Your task to perform on an android device: choose inbox layout in the gmail app Image 0: 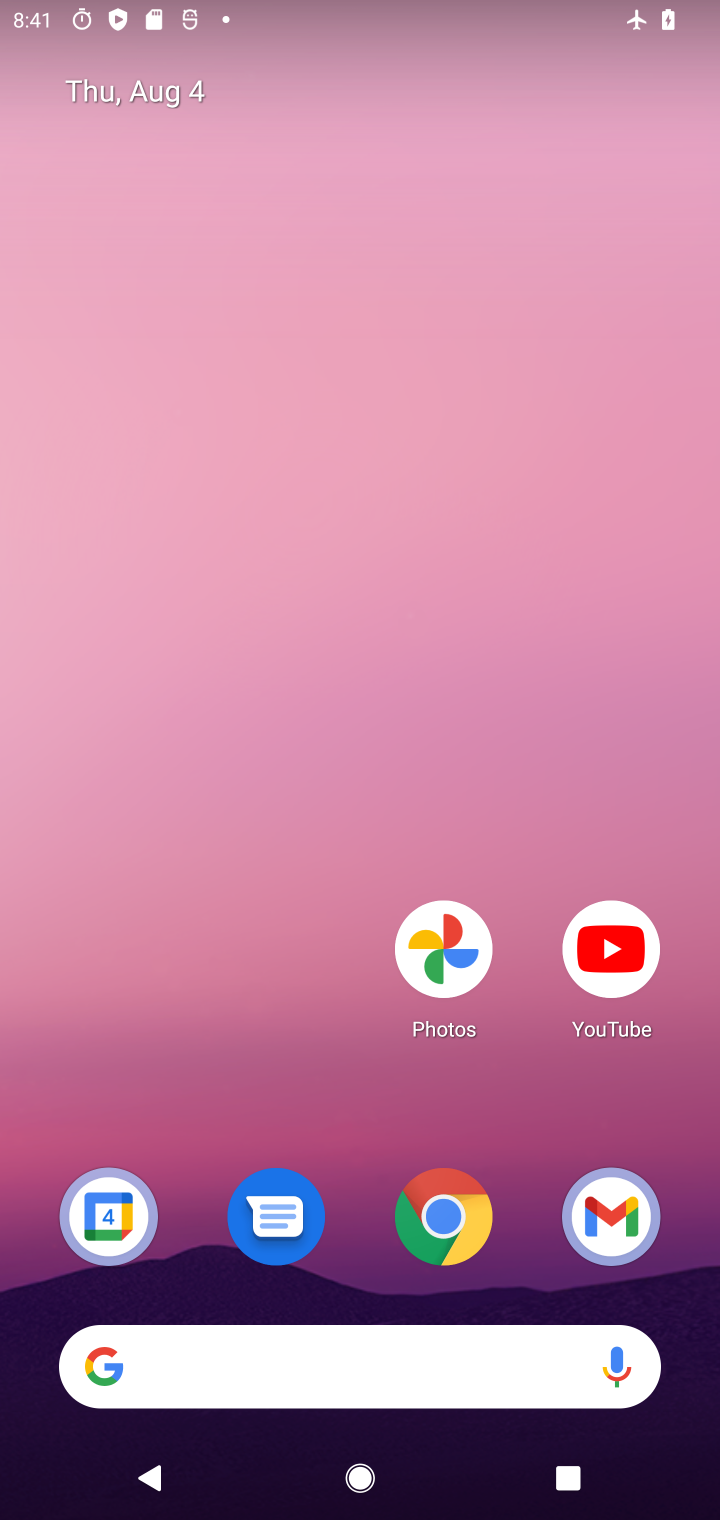
Step 0: drag from (368, 852) to (316, 153)
Your task to perform on an android device: choose inbox layout in the gmail app Image 1: 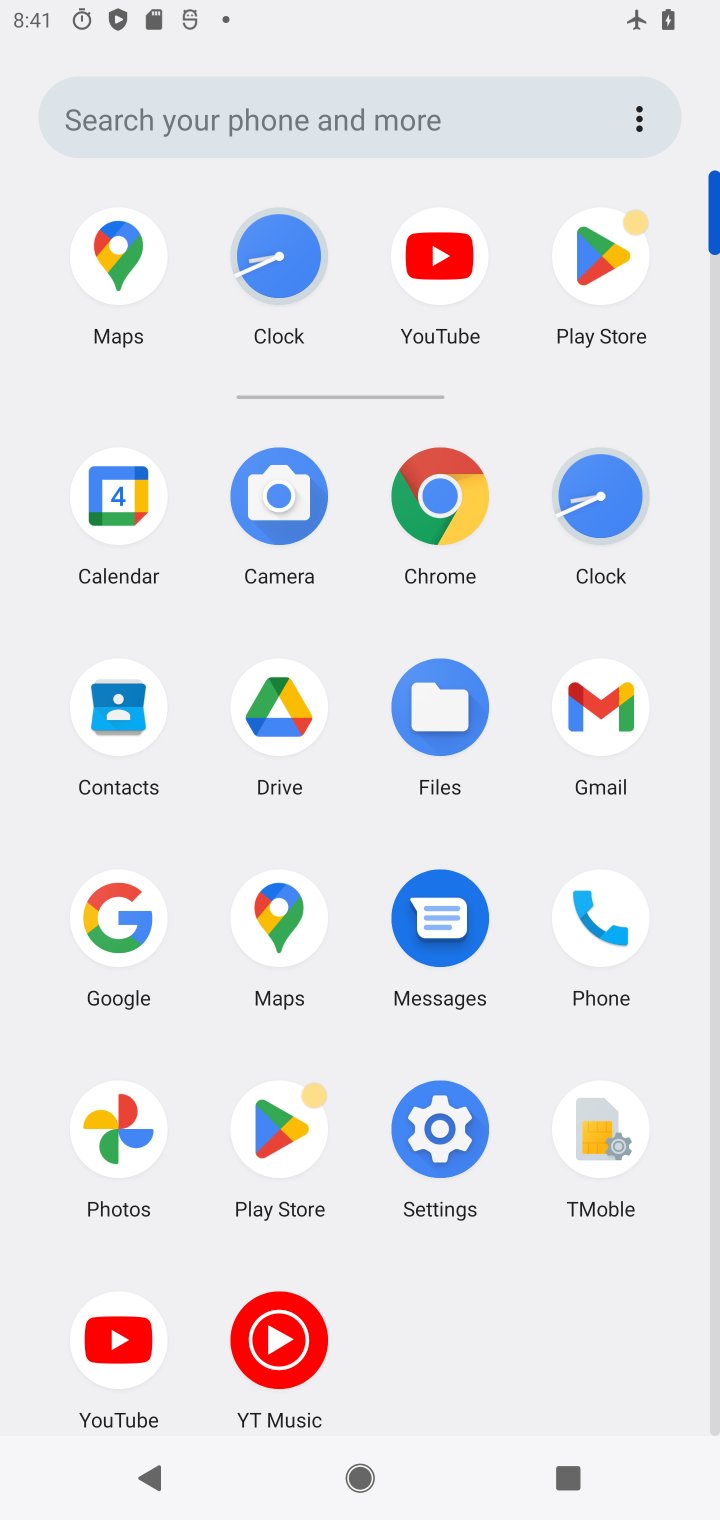
Step 1: click (606, 690)
Your task to perform on an android device: choose inbox layout in the gmail app Image 2: 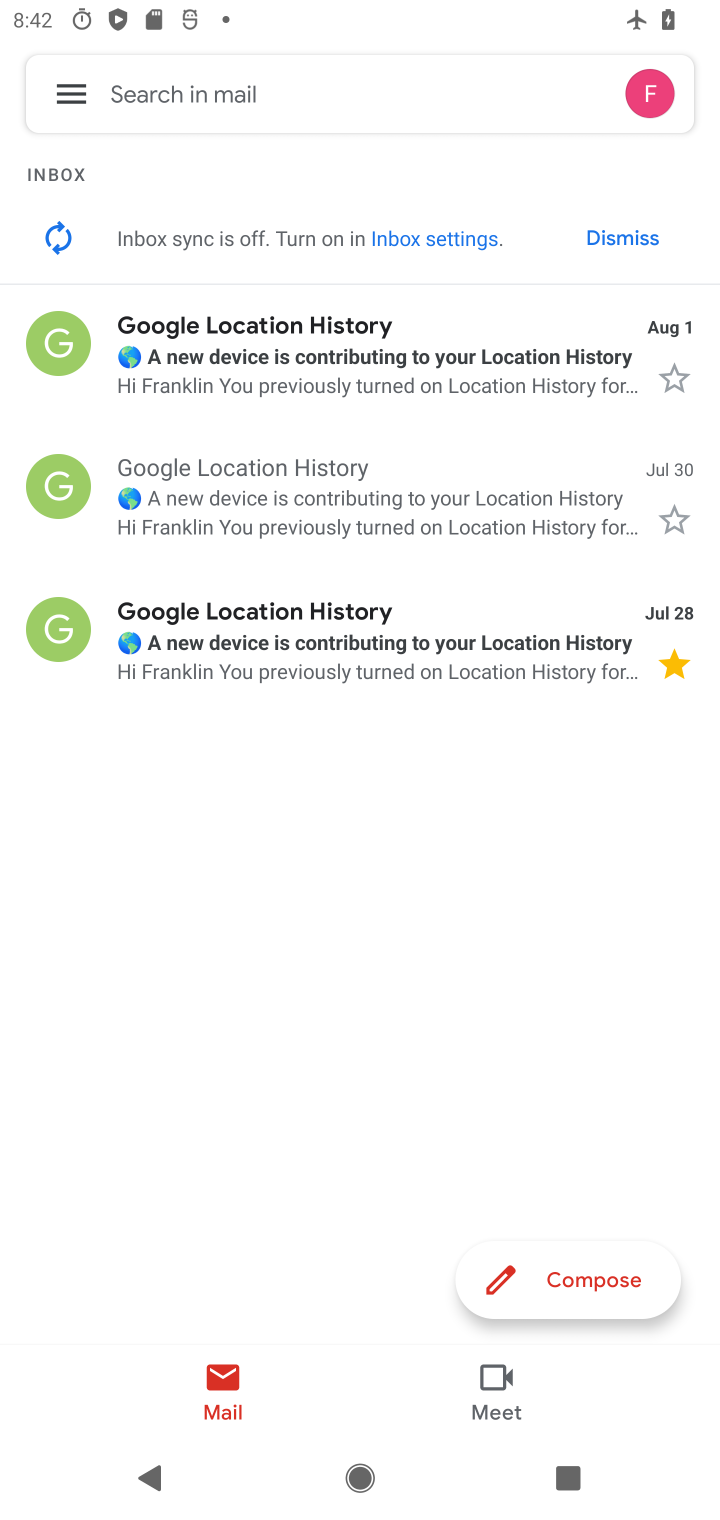
Step 2: click (64, 95)
Your task to perform on an android device: choose inbox layout in the gmail app Image 3: 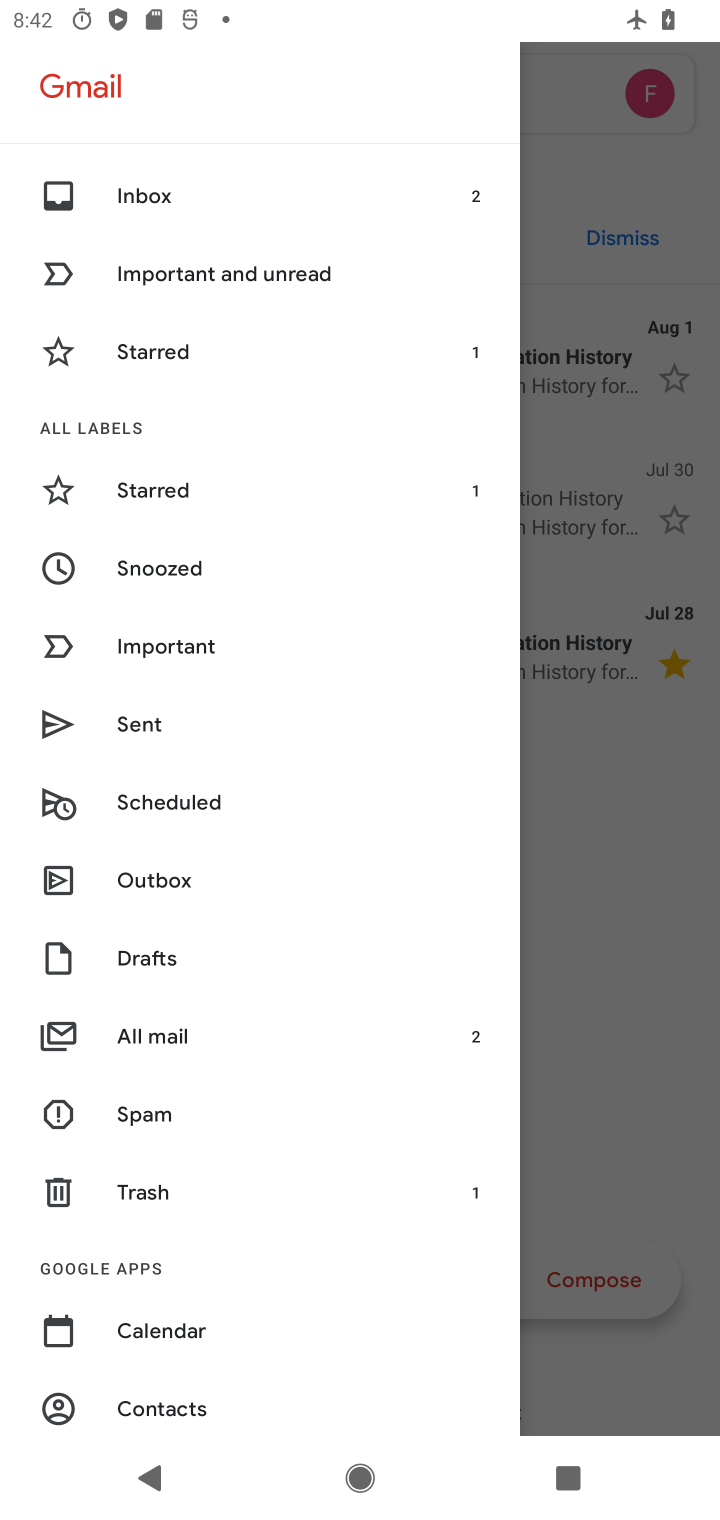
Step 3: drag from (140, 1349) to (147, 531)
Your task to perform on an android device: choose inbox layout in the gmail app Image 4: 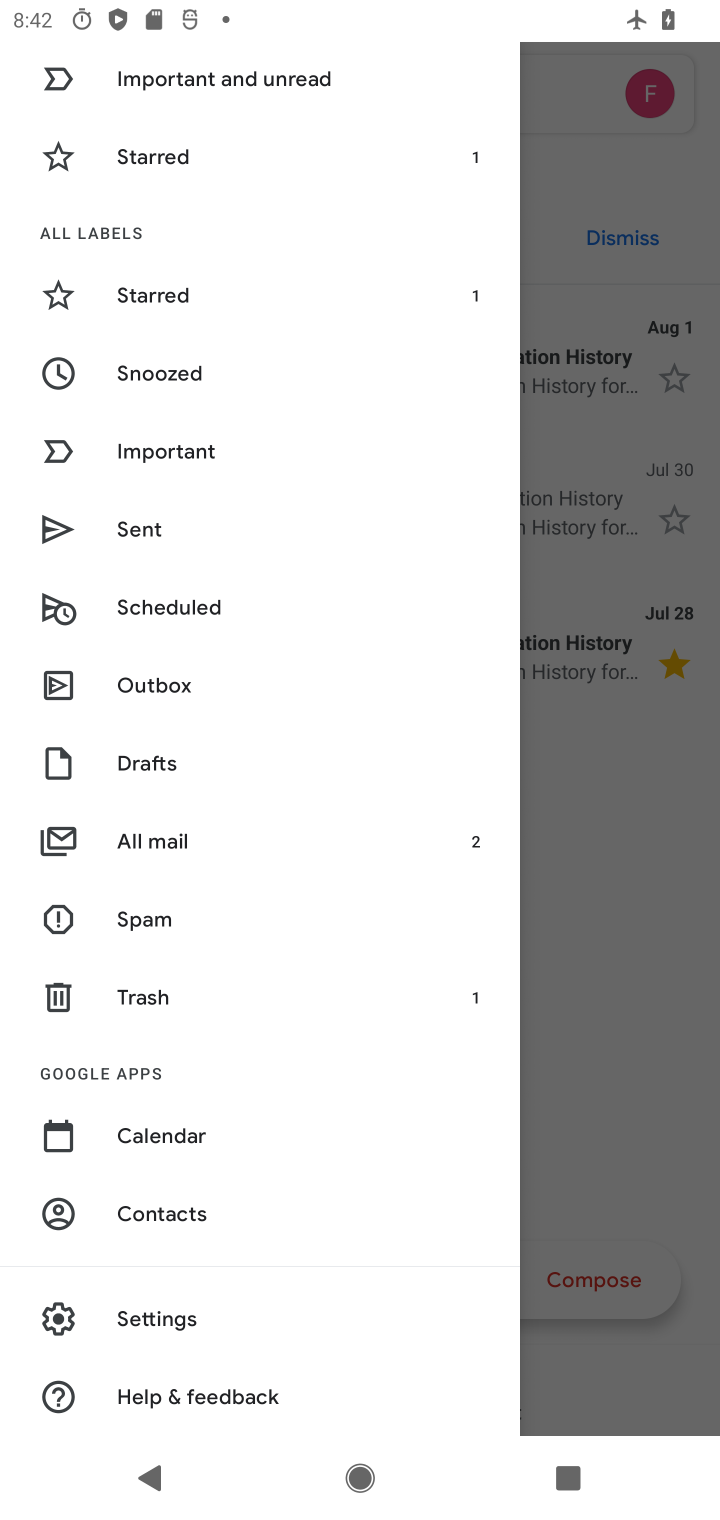
Step 4: click (167, 1311)
Your task to perform on an android device: choose inbox layout in the gmail app Image 5: 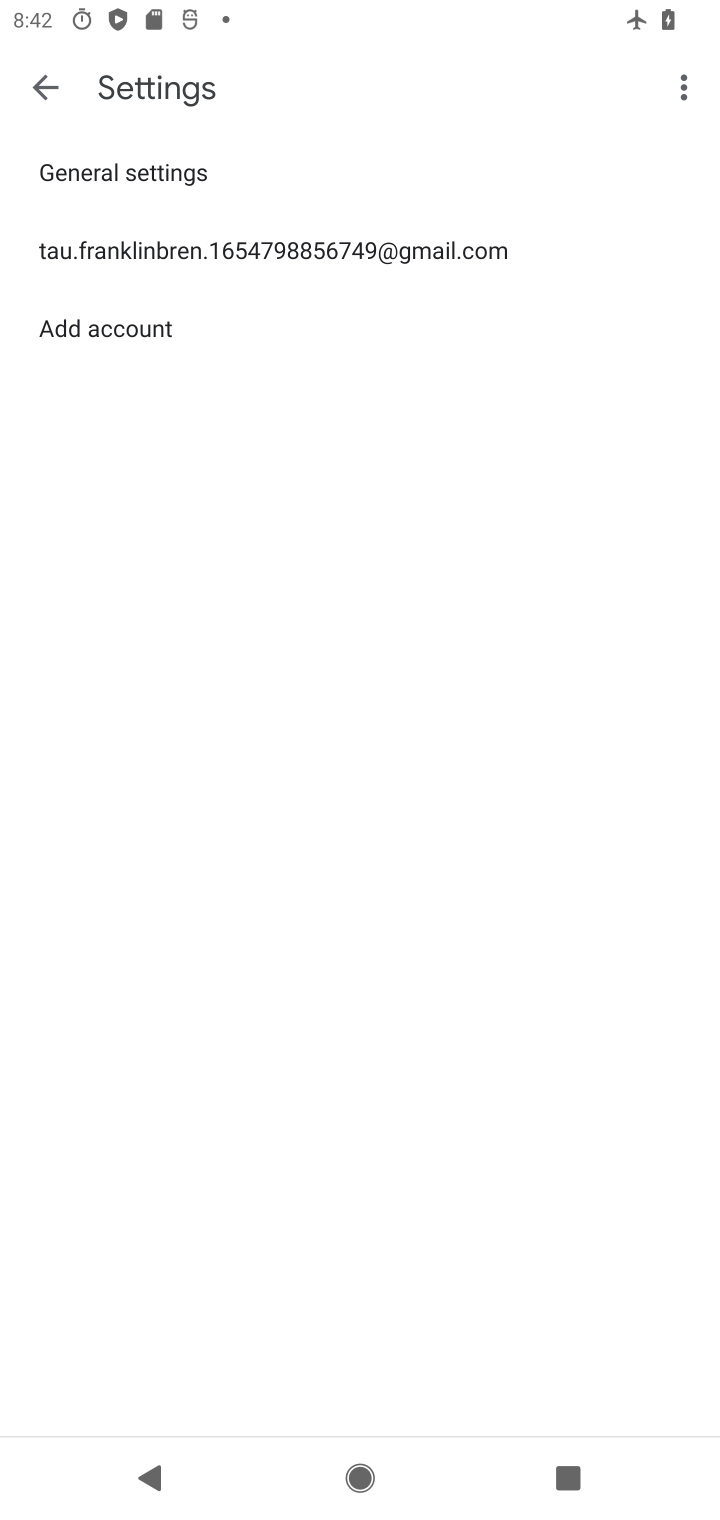
Step 5: click (244, 254)
Your task to perform on an android device: choose inbox layout in the gmail app Image 6: 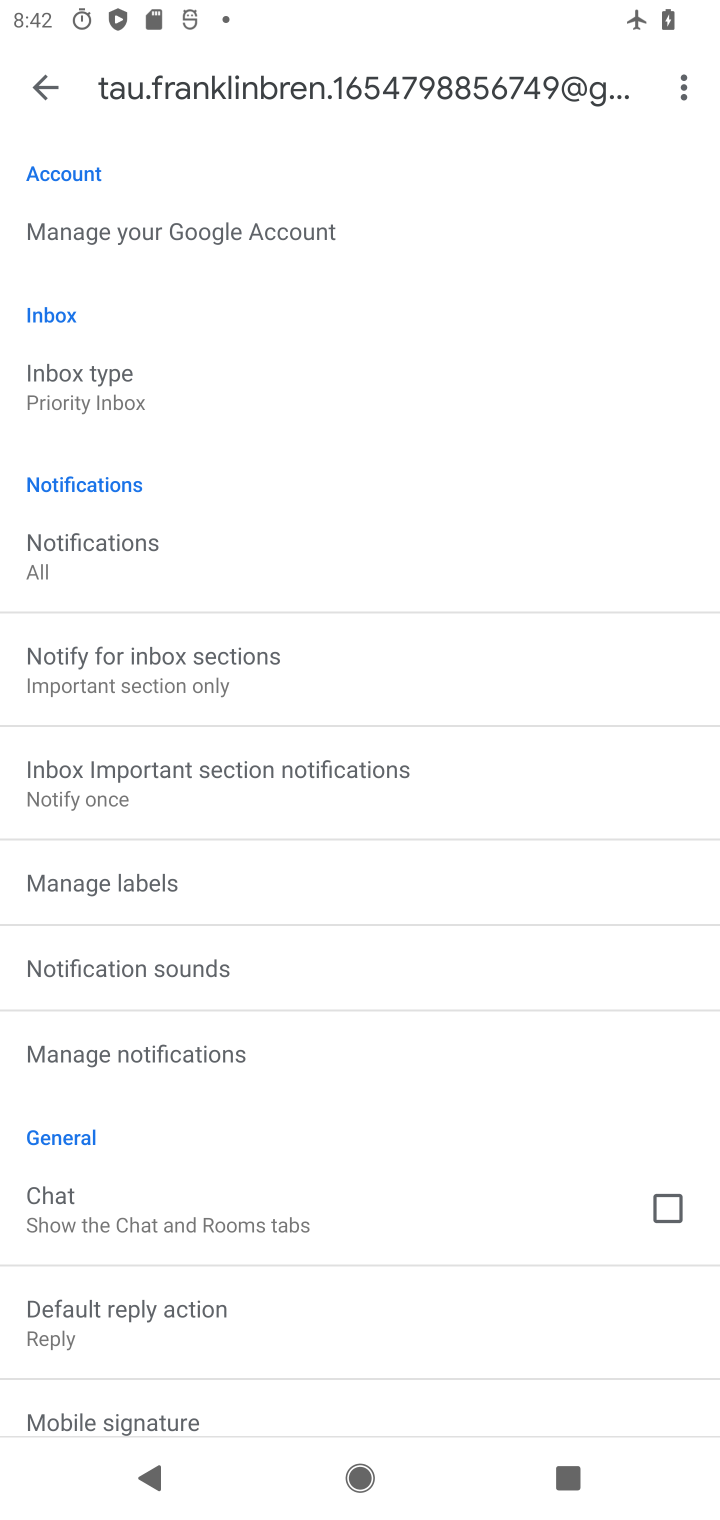
Step 6: click (101, 371)
Your task to perform on an android device: choose inbox layout in the gmail app Image 7: 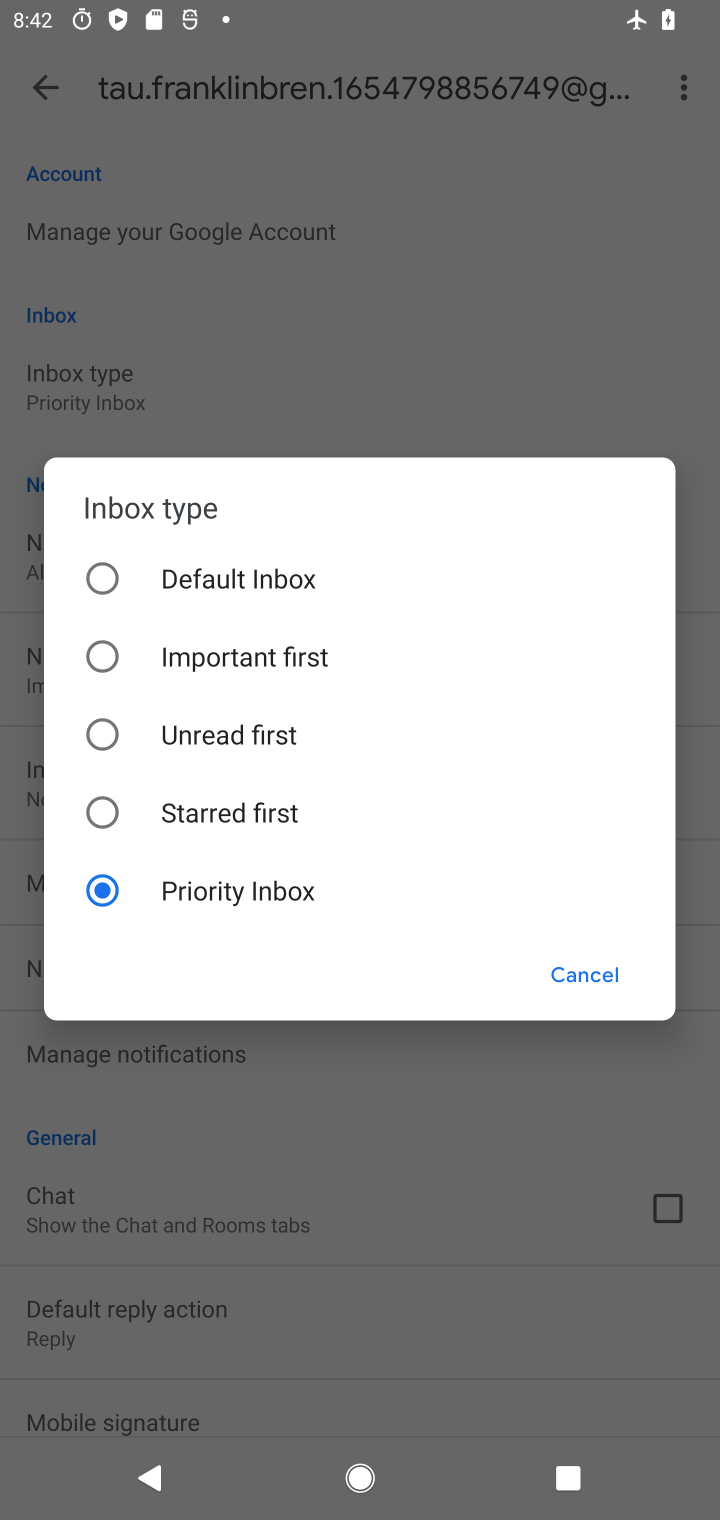
Step 7: click (94, 571)
Your task to perform on an android device: choose inbox layout in the gmail app Image 8: 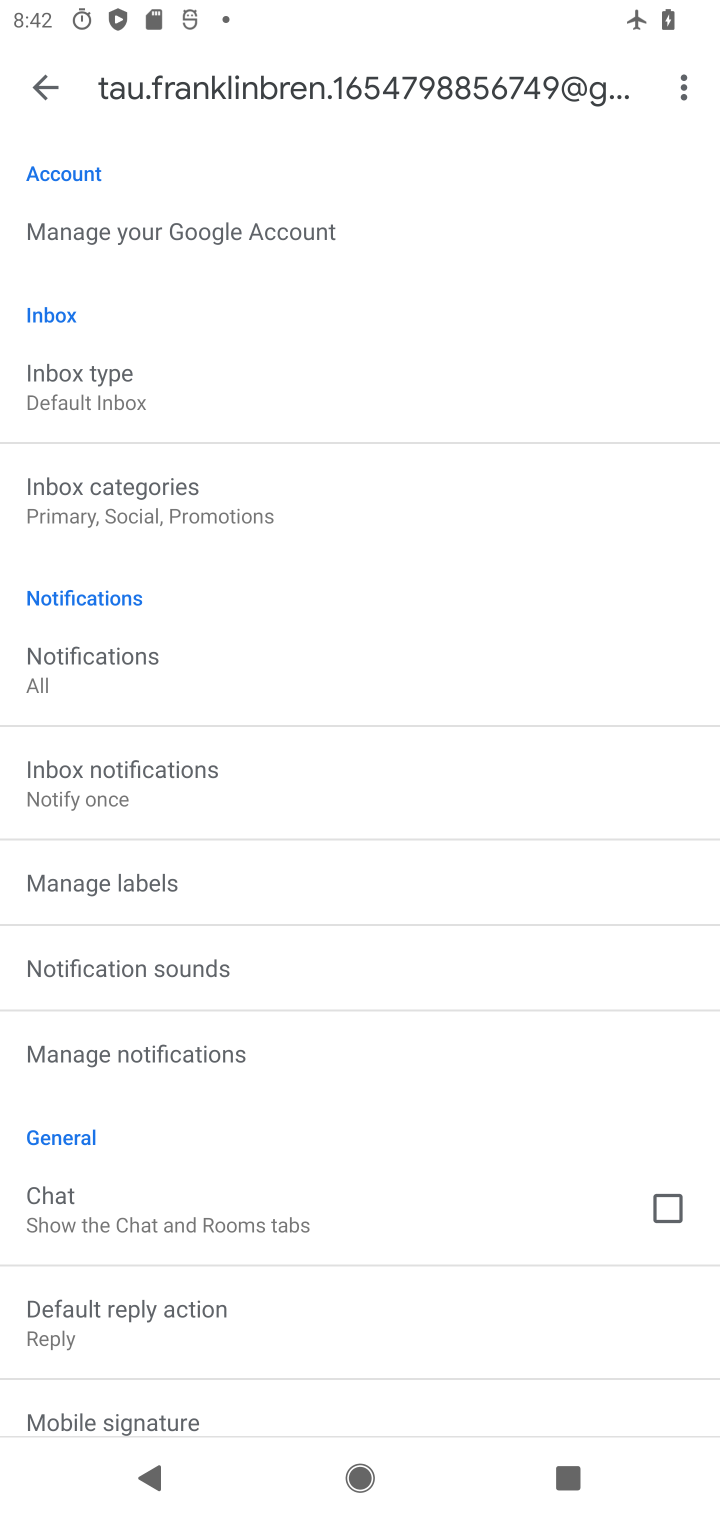
Step 8: task complete